Your task to perform on an android device: open chrome privacy settings Image 0: 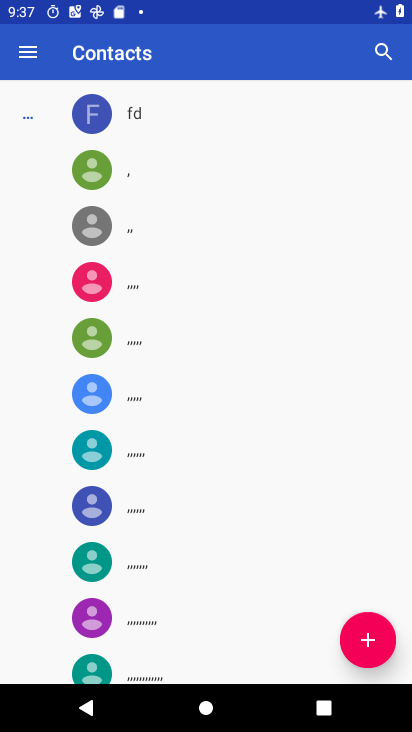
Step 0: press home button
Your task to perform on an android device: open chrome privacy settings Image 1: 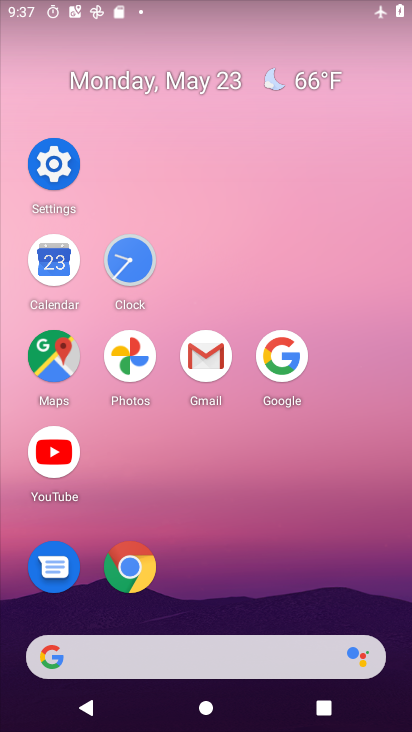
Step 1: click (128, 561)
Your task to perform on an android device: open chrome privacy settings Image 2: 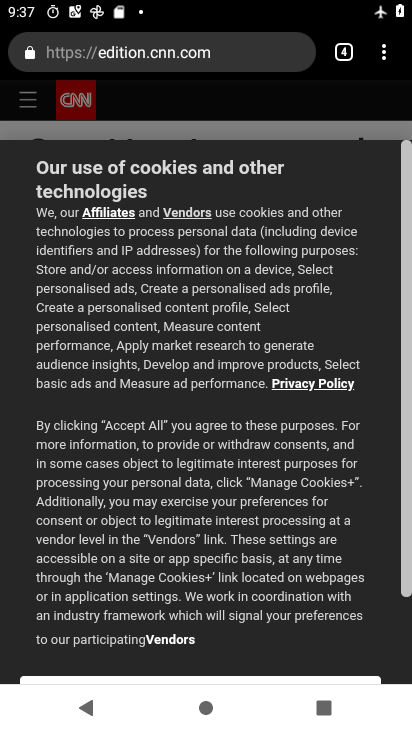
Step 2: click (382, 56)
Your task to perform on an android device: open chrome privacy settings Image 3: 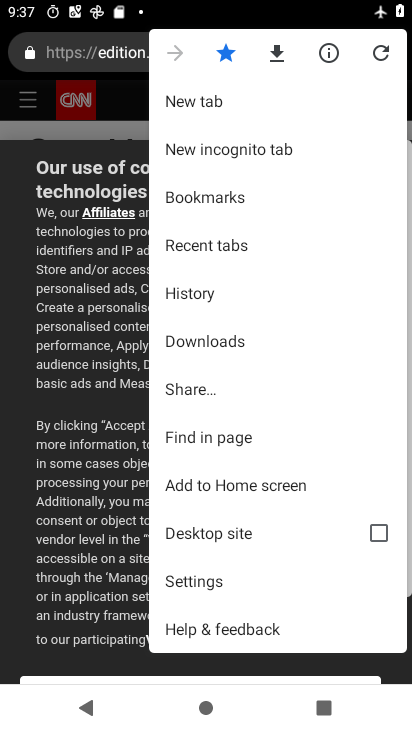
Step 3: click (220, 575)
Your task to perform on an android device: open chrome privacy settings Image 4: 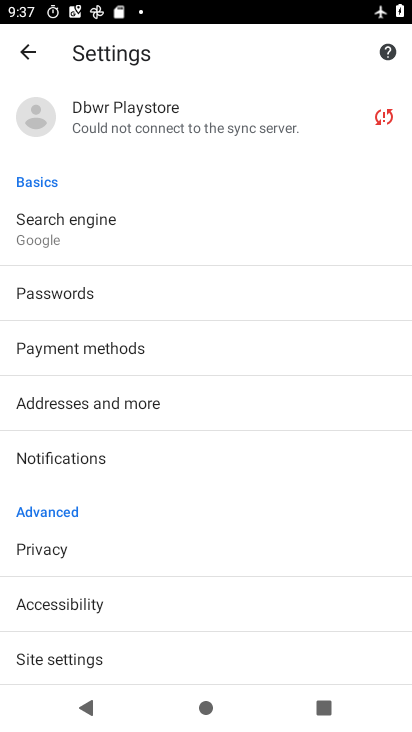
Step 4: click (102, 543)
Your task to perform on an android device: open chrome privacy settings Image 5: 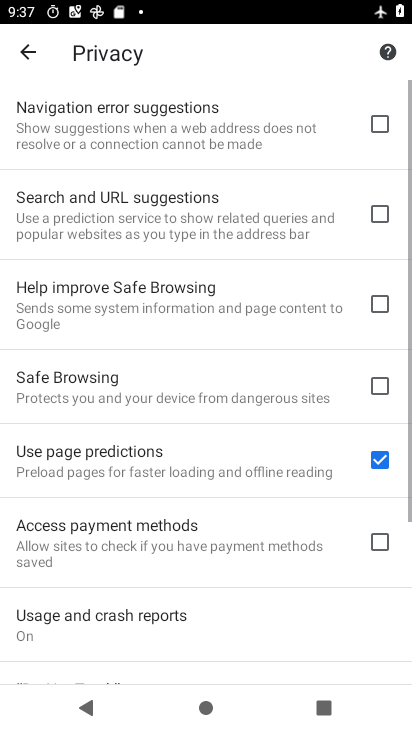
Step 5: task complete